Your task to perform on an android device: Turn on the flashlight Image 0: 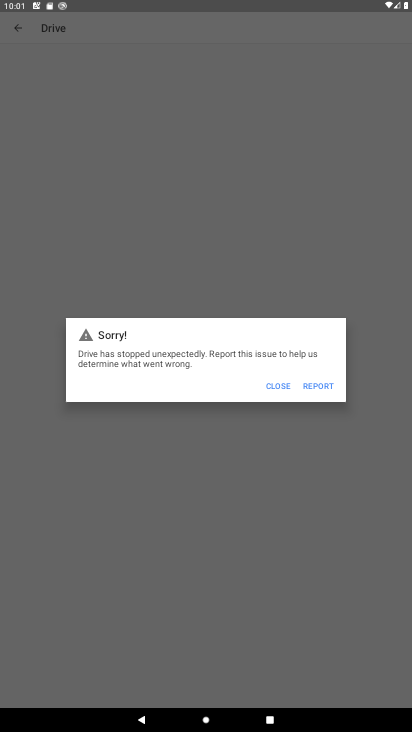
Step 0: press home button
Your task to perform on an android device: Turn on the flashlight Image 1: 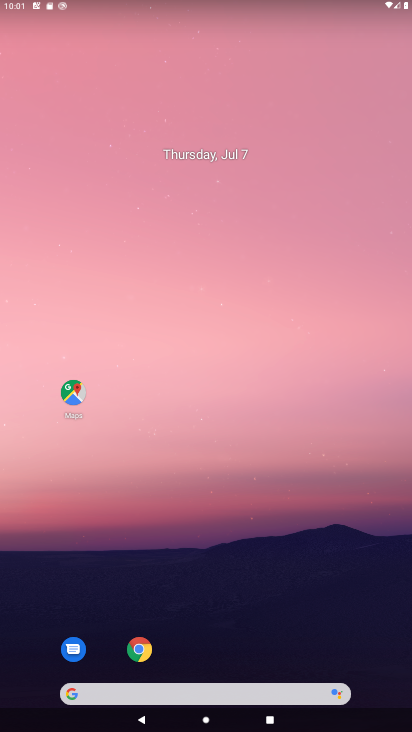
Step 1: drag from (293, 643) to (218, 112)
Your task to perform on an android device: Turn on the flashlight Image 2: 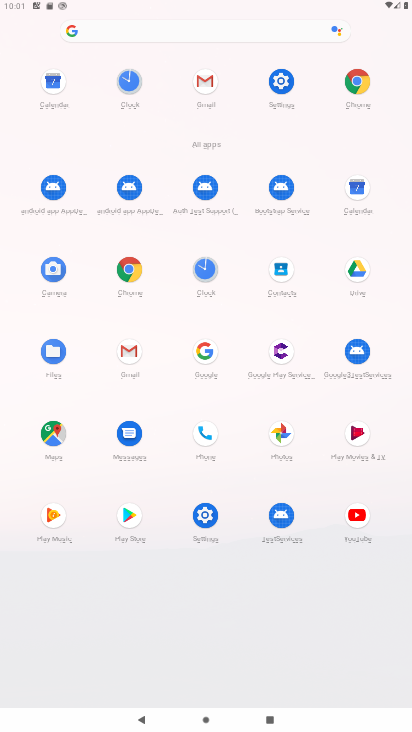
Step 2: click (280, 82)
Your task to perform on an android device: Turn on the flashlight Image 3: 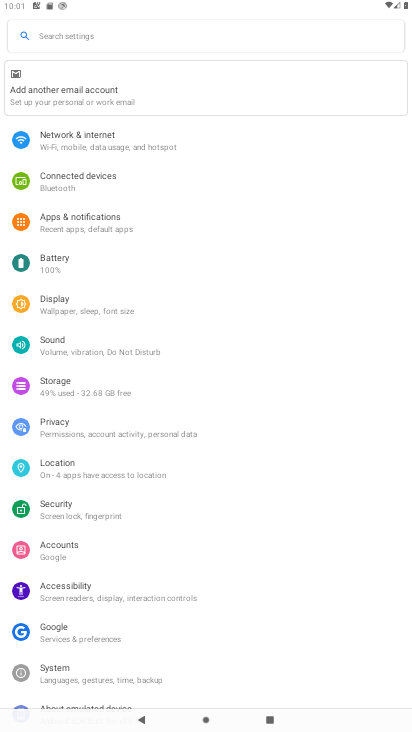
Step 3: task complete